Your task to perform on an android device: Go to network settings Image 0: 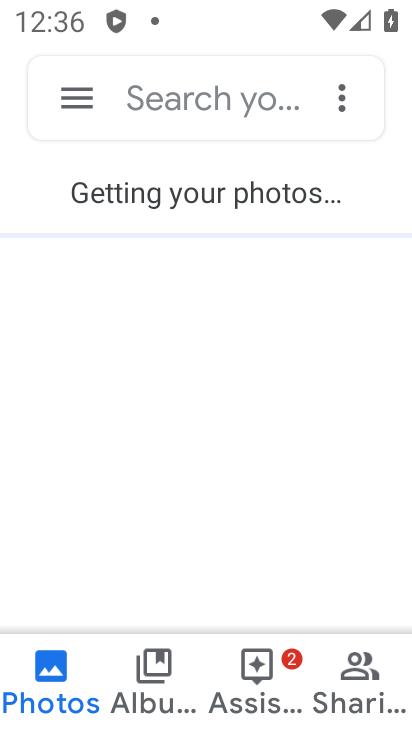
Step 0: press home button
Your task to perform on an android device: Go to network settings Image 1: 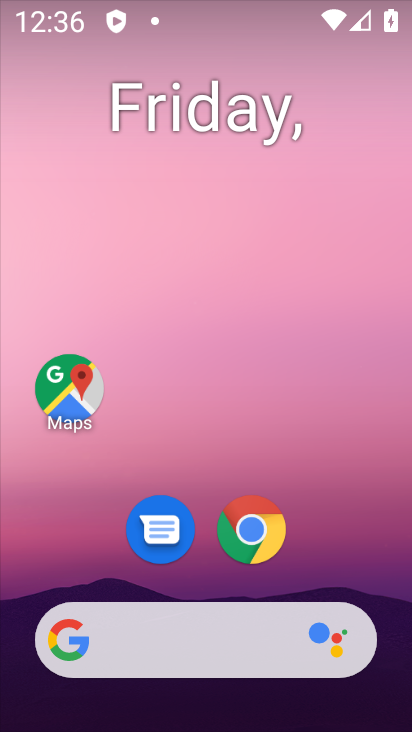
Step 1: drag from (195, 609) to (183, 252)
Your task to perform on an android device: Go to network settings Image 2: 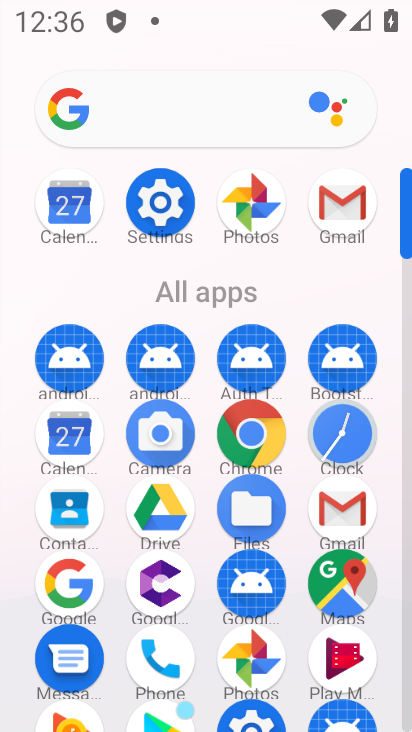
Step 2: click (181, 217)
Your task to perform on an android device: Go to network settings Image 3: 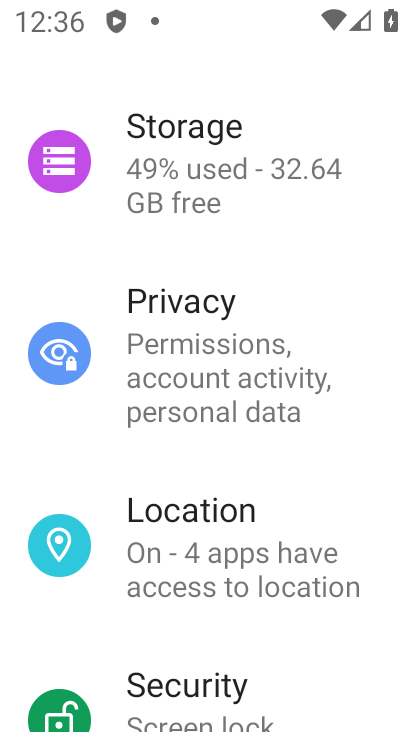
Step 3: drag from (233, 107) to (252, 662)
Your task to perform on an android device: Go to network settings Image 4: 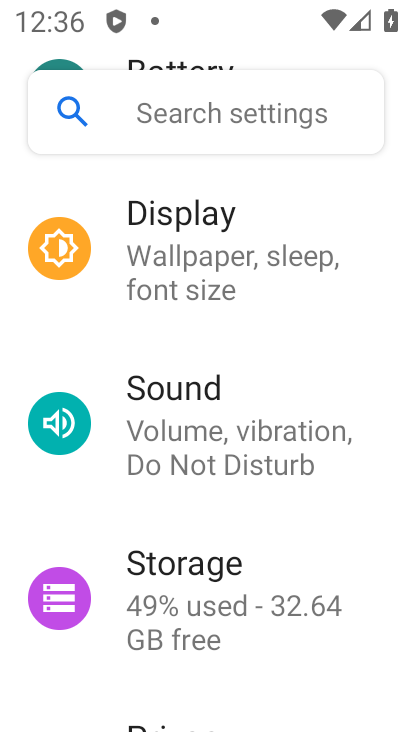
Step 4: drag from (270, 144) to (300, 550)
Your task to perform on an android device: Go to network settings Image 5: 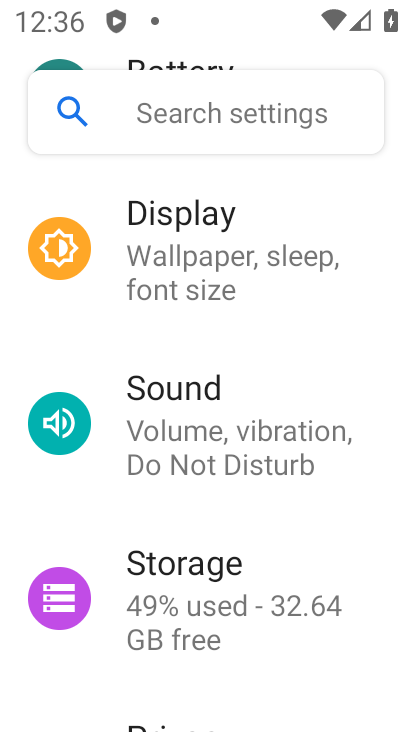
Step 5: drag from (282, 211) to (304, 560)
Your task to perform on an android device: Go to network settings Image 6: 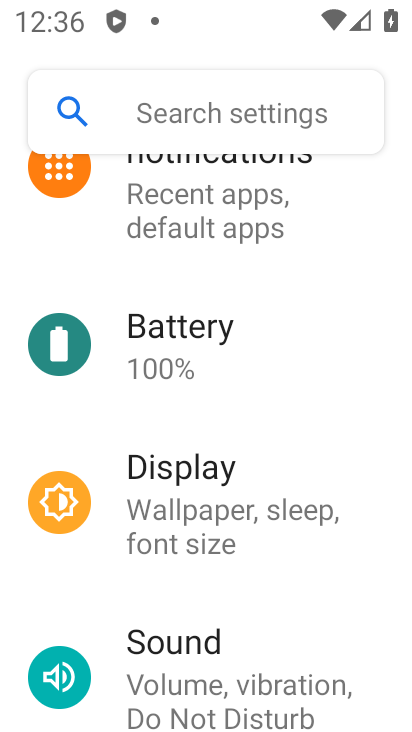
Step 6: drag from (263, 203) to (263, 694)
Your task to perform on an android device: Go to network settings Image 7: 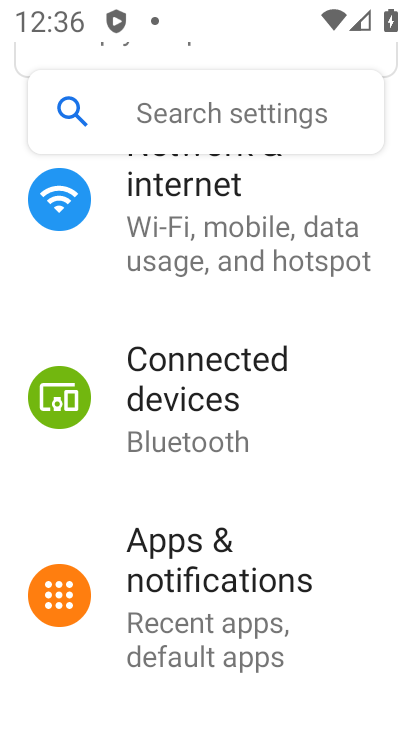
Step 7: drag from (256, 235) to (330, 729)
Your task to perform on an android device: Go to network settings Image 8: 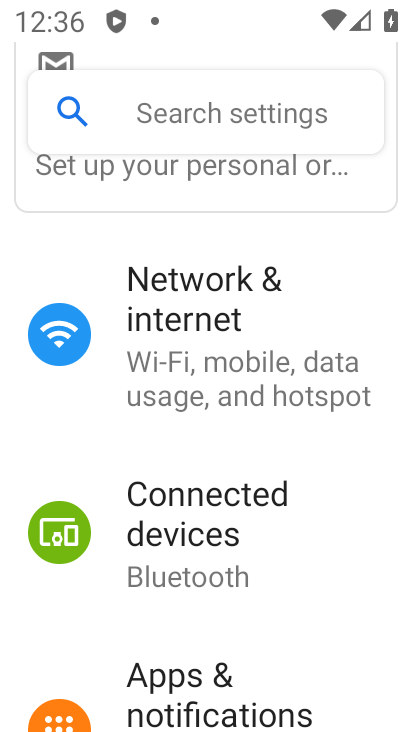
Step 8: click (258, 348)
Your task to perform on an android device: Go to network settings Image 9: 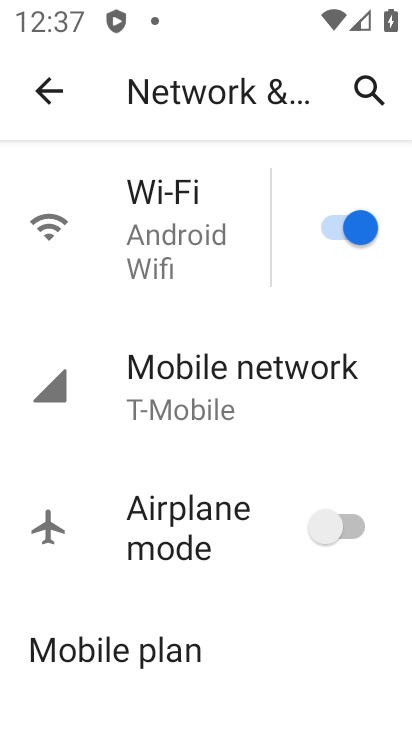
Step 9: click (173, 236)
Your task to perform on an android device: Go to network settings Image 10: 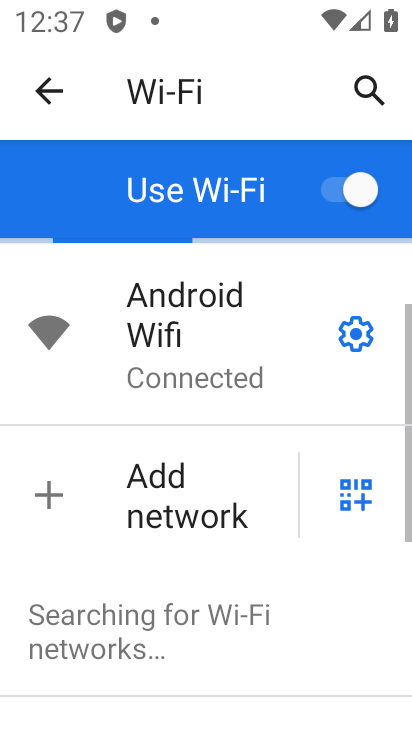
Step 10: task complete